Your task to perform on an android device: Search for Italian restaurants on Maps Image 0: 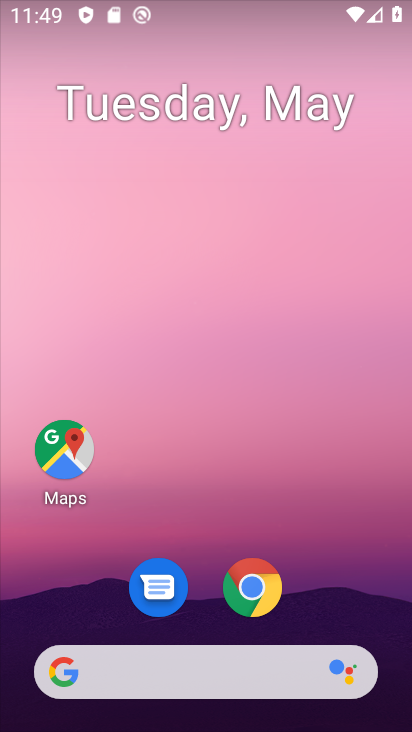
Step 0: click (56, 450)
Your task to perform on an android device: Search for Italian restaurants on Maps Image 1: 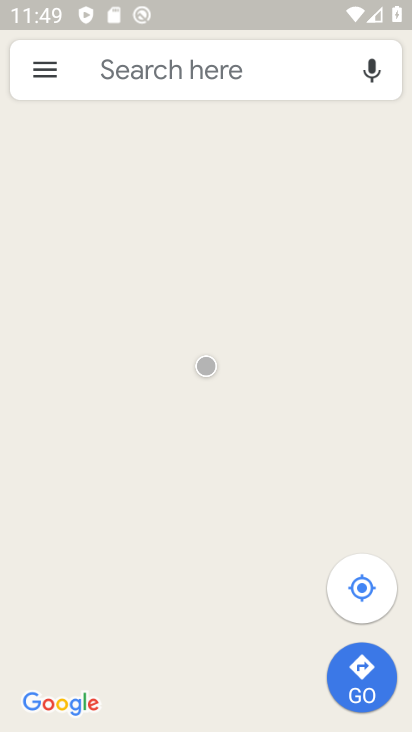
Step 1: click (198, 73)
Your task to perform on an android device: Search for Italian restaurants on Maps Image 2: 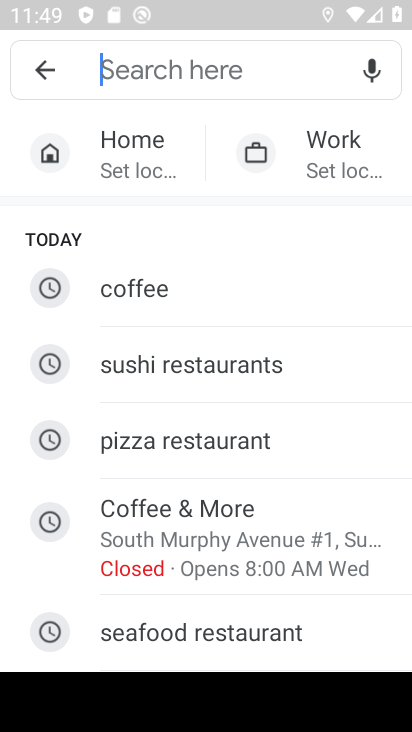
Step 2: type "italian restaurants"
Your task to perform on an android device: Search for Italian restaurants on Maps Image 3: 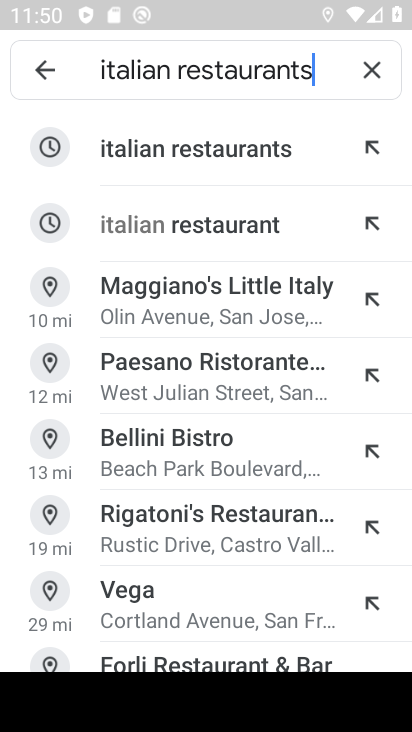
Step 3: click (147, 134)
Your task to perform on an android device: Search for Italian restaurants on Maps Image 4: 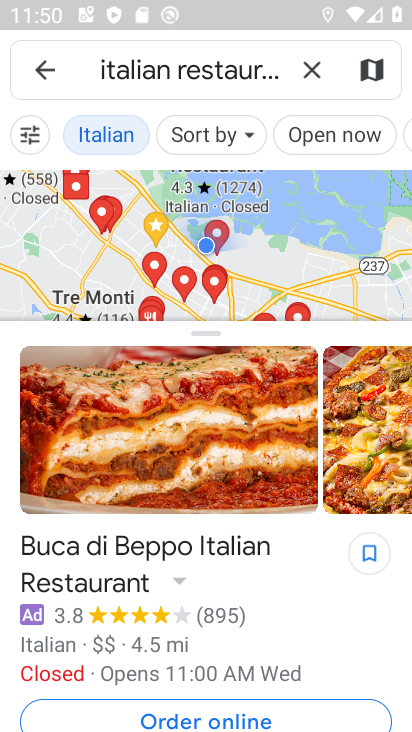
Step 4: task complete